Your task to perform on an android device: toggle sleep mode Image 0: 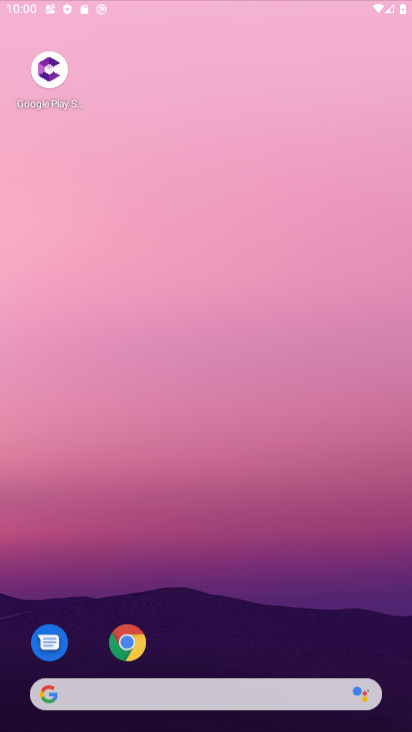
Step 0: drag from (239, 616) to (240, 145)
Your task to perform on an android device: toggle sleep mode Image 1: 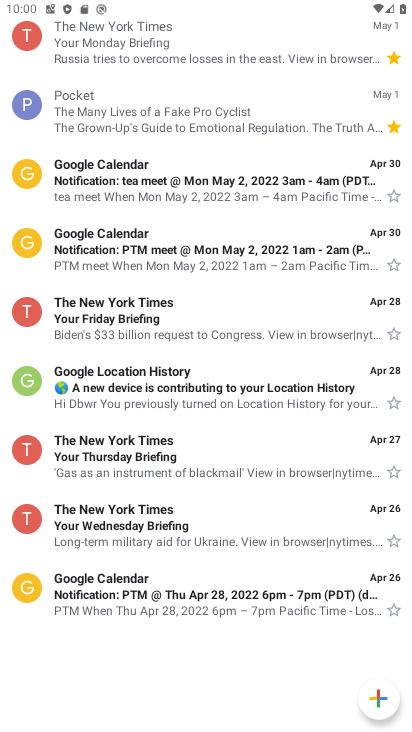
Step 1: press home button
Your task to perform on an android device: toggle sleep mode Image 2: 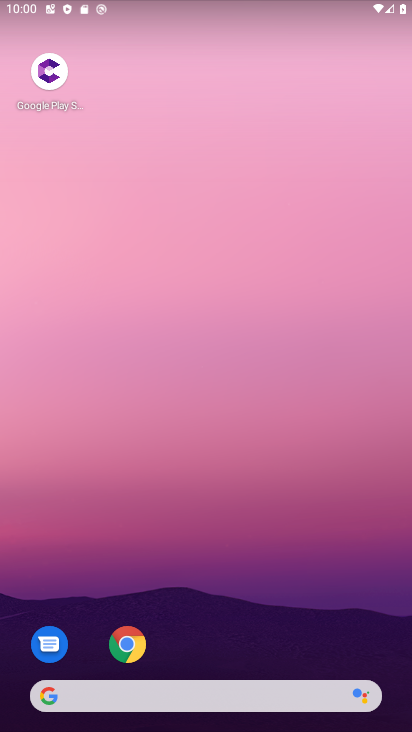
Step 2: drag from (265, 626) to (300, 165)
Your task to perform on an android device: toggle sleep mode Image 3: 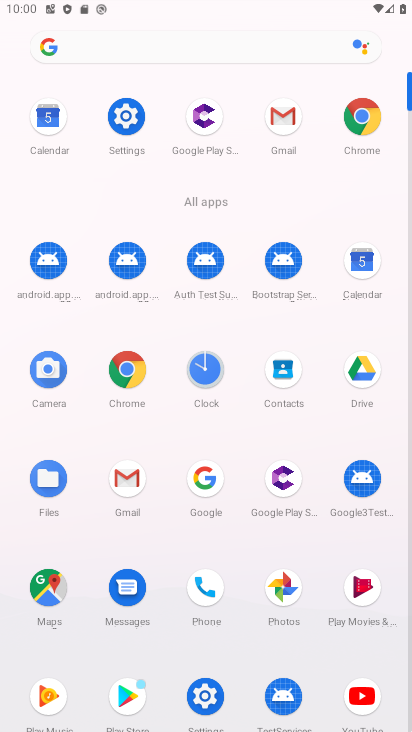
Step 3: click (131, 112)
Your task to perform on an android device: toggle sleep mode Image 4: 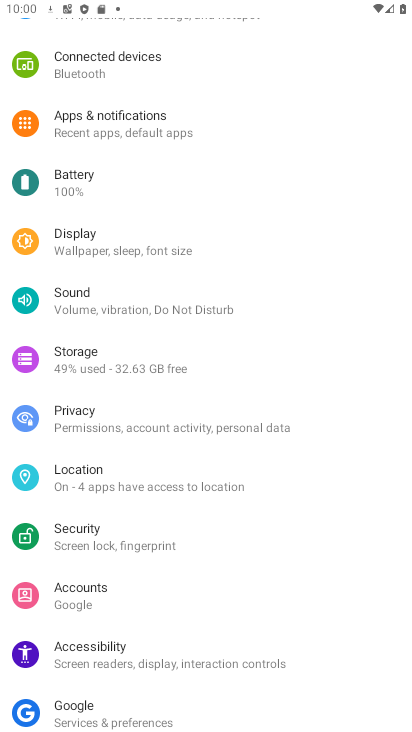
Step 4: click (152, 250)
Your task to perform on an android device: toggle sleep mode Image 5: 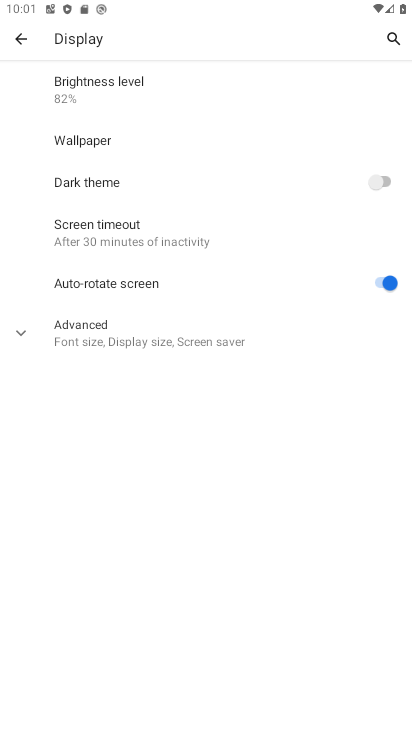
Step 5: click (24, 337)
Your task to perform on an android device: toggle sleep mode Image 6: 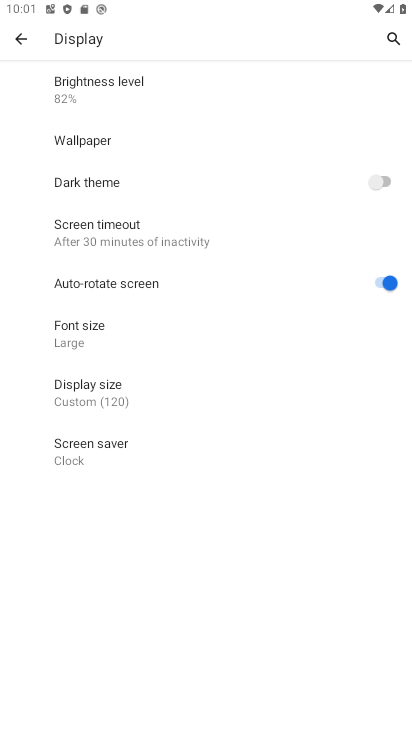
Step 6: task complete